Your task to perform on an android device: turn on sleep mode Image 0: 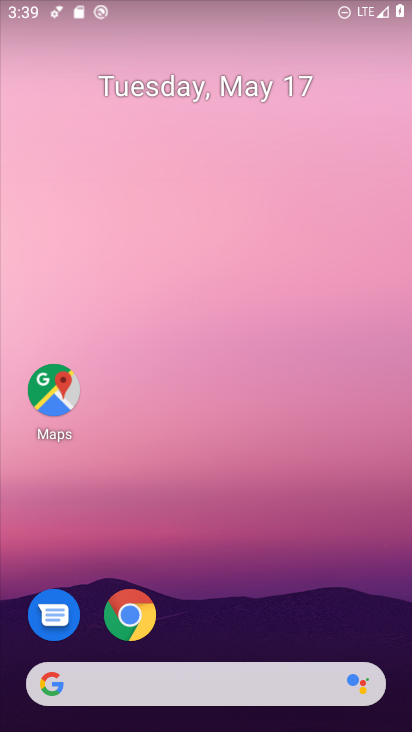
Step 0: drag from (249, 724) to (250, 345)
Your task to perform on an android device: turn on sleep mode Image 1: 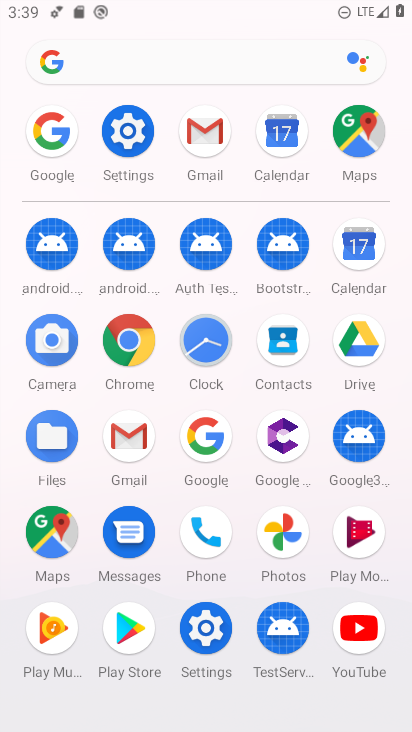
Step 1: click (126, 127)
Your task to perform on an android device: turn on sleep mode Image 2: 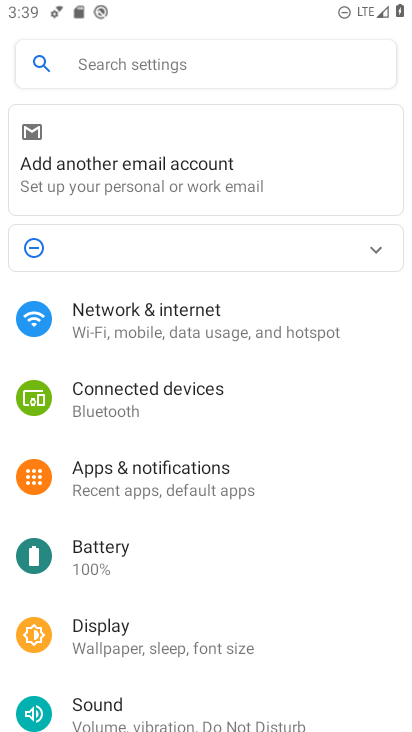
Step 2: drag from (182, 640) to (179, 330)
Your task to perform on an android device: turn on sleep mode Image 3: 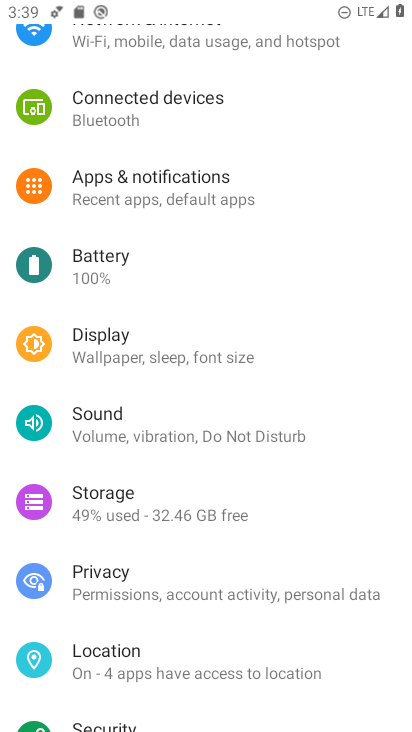
Step 3: drag from (210, 703) to (213, 134)
Your task to perform on an android device: turn on sleep mode Image 4: 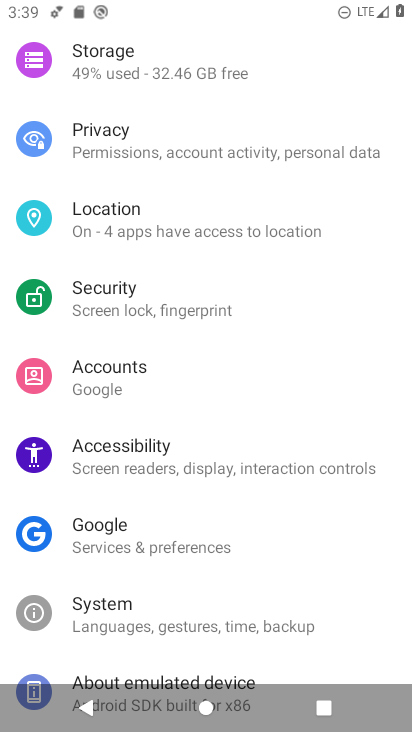
Step 4: drag from (229, 136) to (283, 641)
Your task to perform on an android device: turn on sleep mode Image 5: 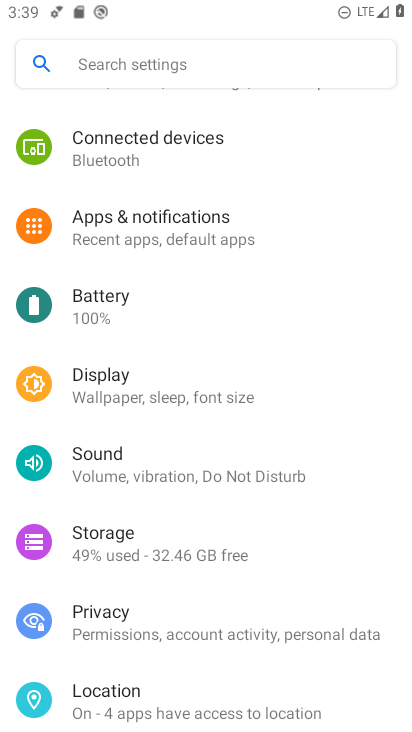
Step 5: click (195, 391)
Your task to perform on an android device: turn on sleep mode Image 6: 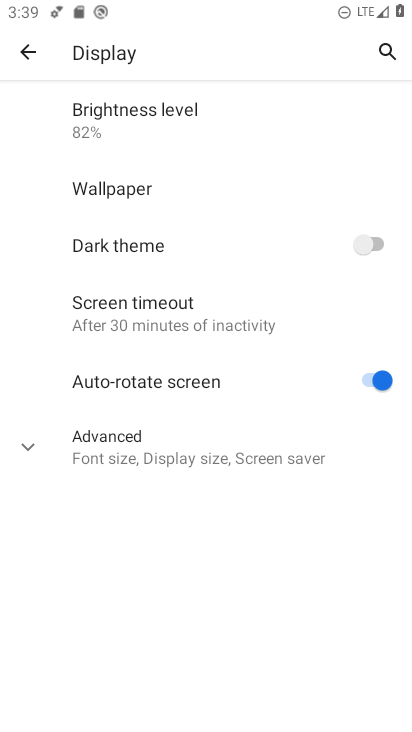
Step 6: click (29, 49)
Your task to perform on an android device: turn on sleep mode Image 7: 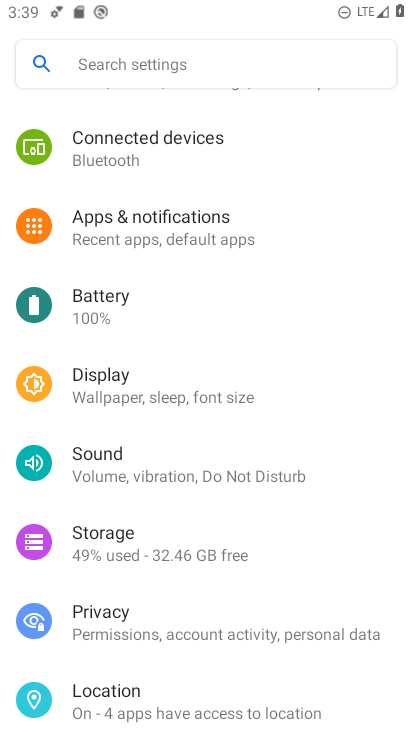
Step 7: task complete